Your task to perform on an android device: open a new tab in the chrome app Image 0: 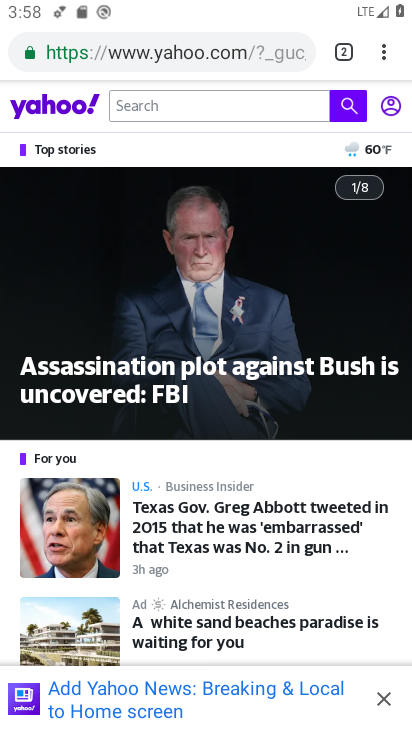
Step 0: press home button
Your task to perform on an android device: open a new tab in the chrome app Image 1: 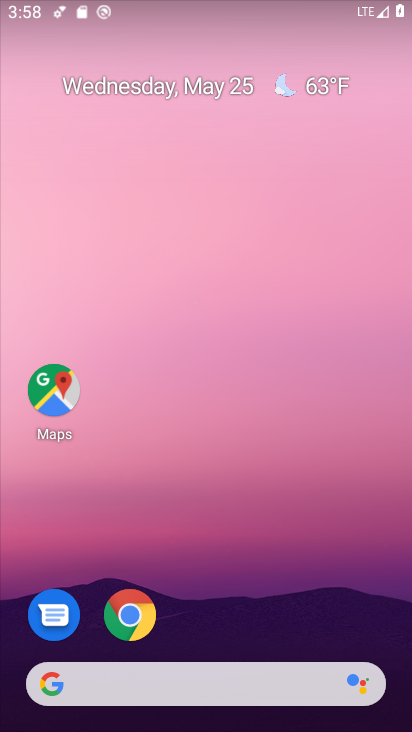
Step 1: click (140, 609)
Your task to perform on an android device: open a new tab in the chrome app Image 2: 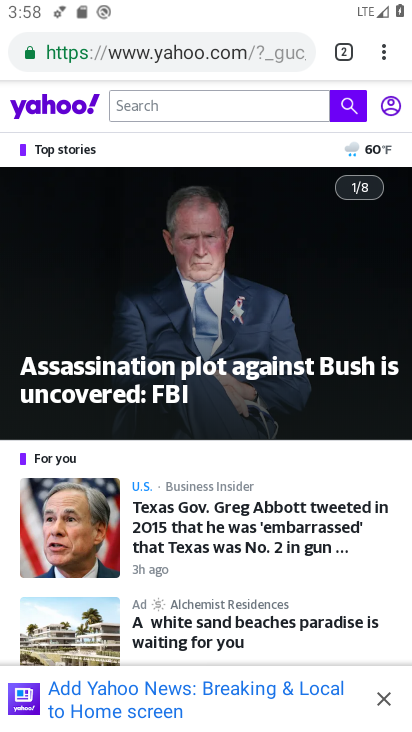
Step 2: click (345, 56)
Your task to perform on an android device: open a new tab in the chrome app Image 3: 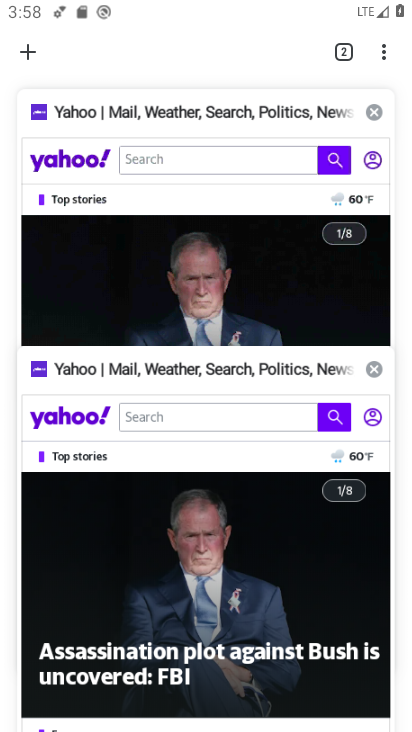
Step 3: click (26, 56)
Your task to perform on an android device: open a new tab in the chrome app Image 4: 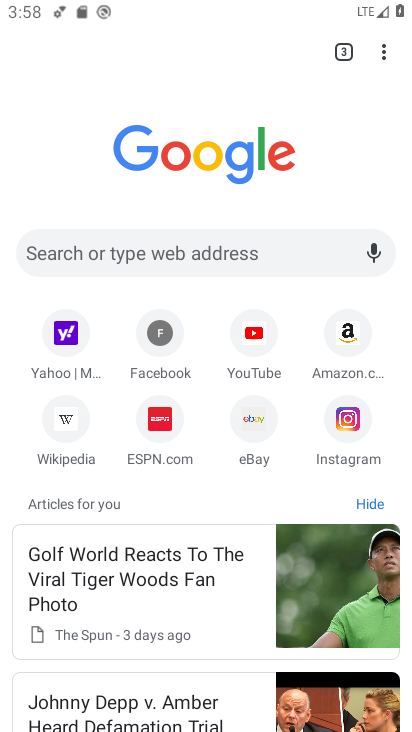
Step 4: task complete